Your task to perform on an android device: check out phone information Image 0: 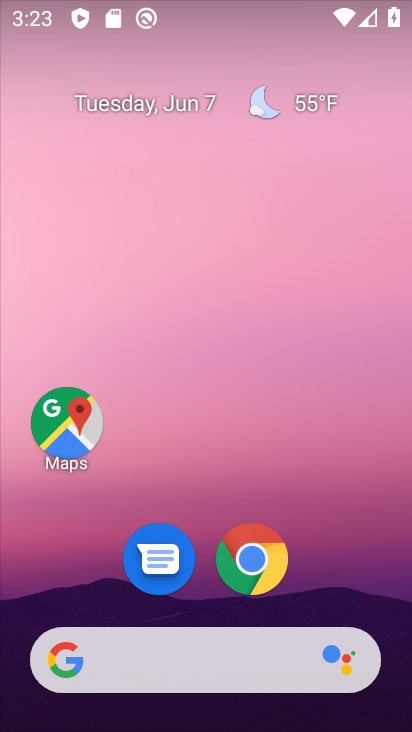
Step 0: drag from (215, 725) to (201, 72)
Your task to perform on an android device: check out phone information Image 1: 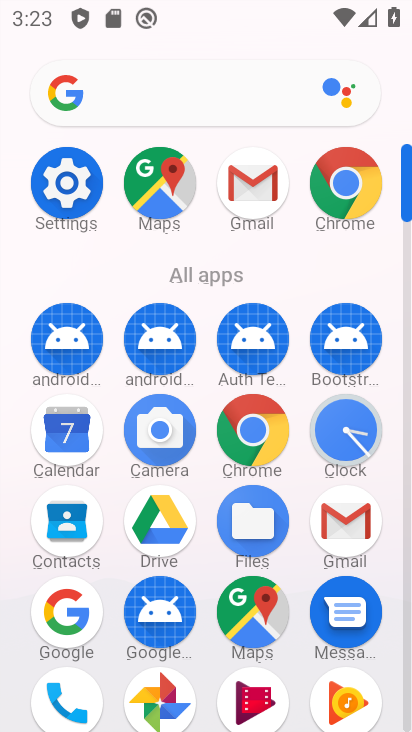
Step 1: click (63, 194)
Your task to perform on an android device: check out phone information Image 2: 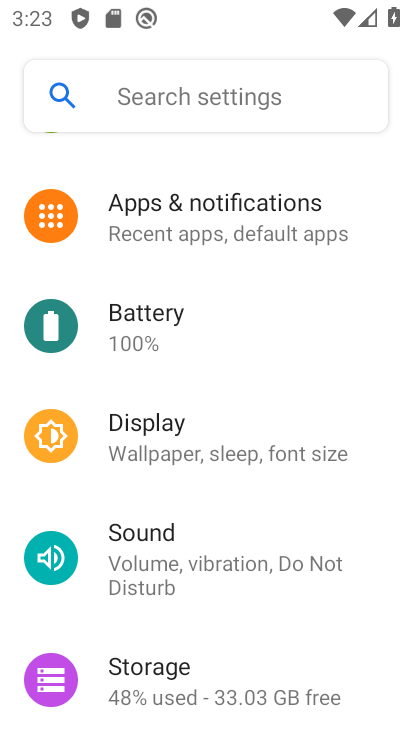
Step 2: drag from (167, 683) to (174, 248)
Your task to perform on an android device: check out phone information Image 3: 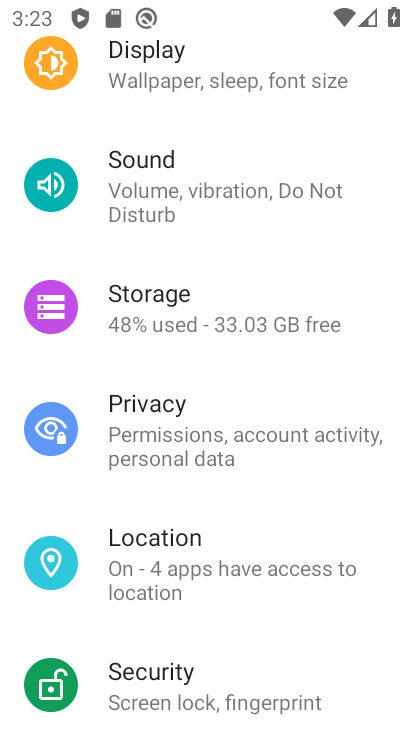
Step 3: drag from (196, 683) to (201, 305)
Your task to perform on an android device: check out phone information Image 4: 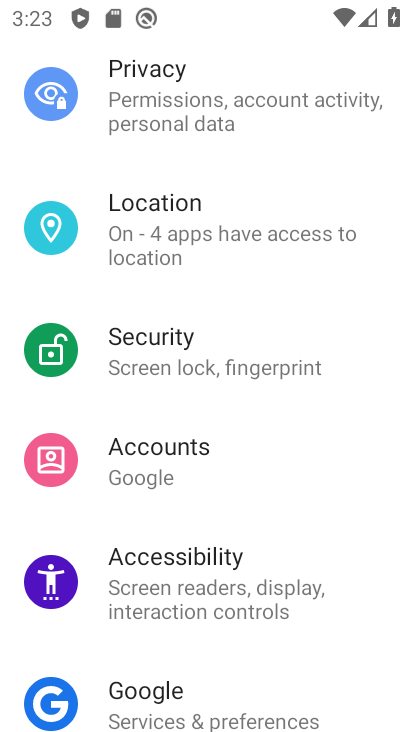
Step 4: drag from (214, 693) to (233, 348)
Your task to perform on an android device: check out phone information Image 5: 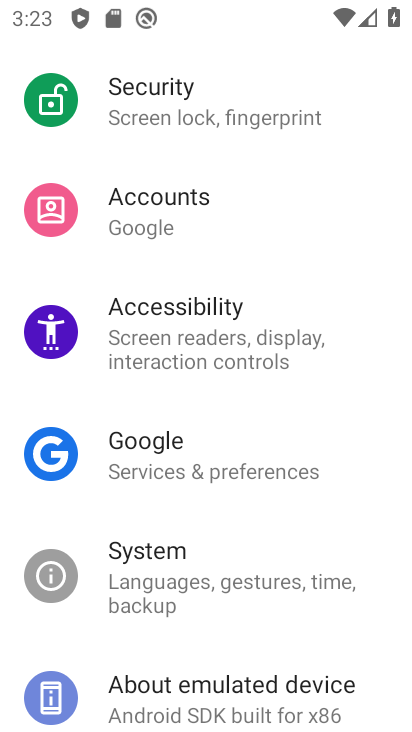
Step 5: drag from (243, 696) to (246, 364)
Your task to perform on an android device: check out phone information Image 6: 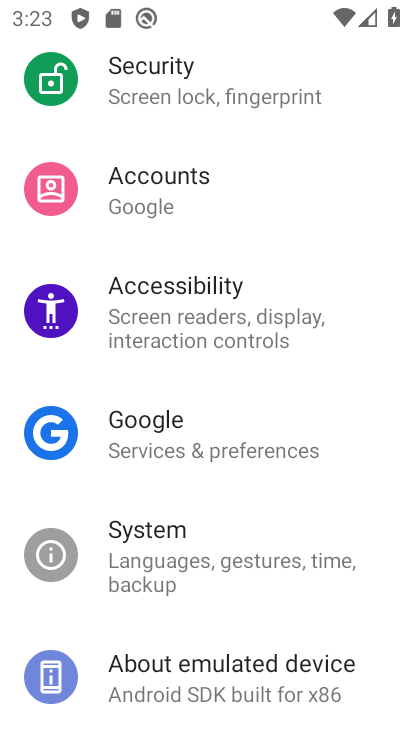
Step 6: click (183, 683)
Your task to perform on an android device: check out phone information Image 7: 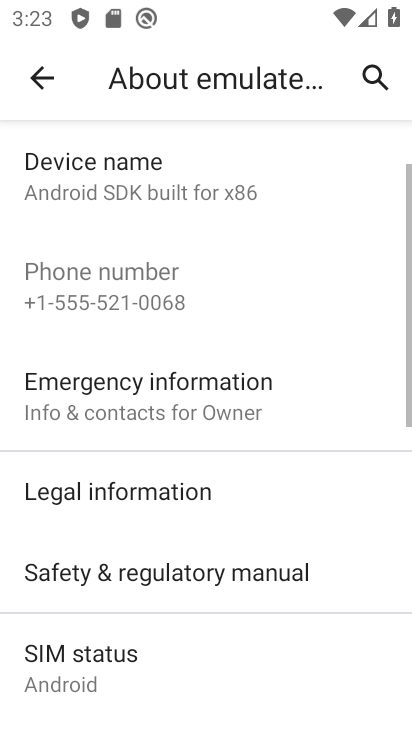
Step 7: task complete